Your task to perform on an android device: Open wifi settings Image 0: 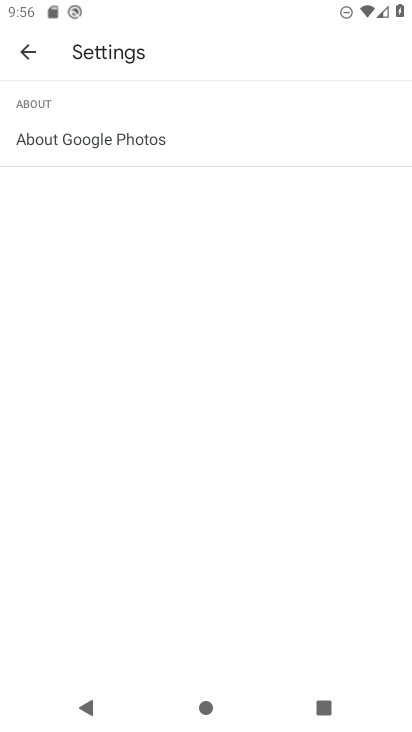
Step 0: drag from (177, 604) to (182, 123)
Your task to perform on an android device: Open wifi settings Image 1: 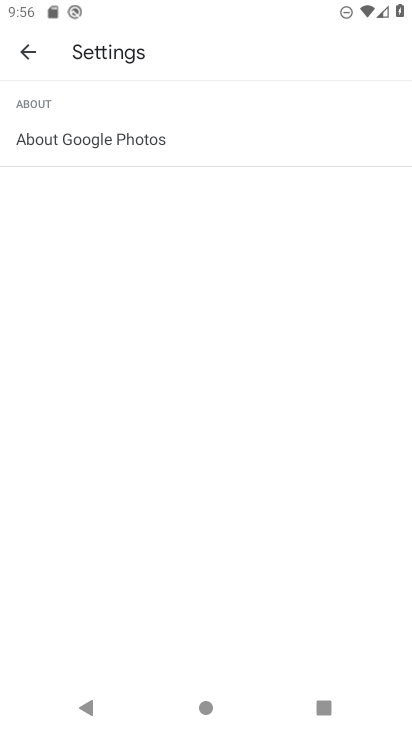
Step 1: press home button
Your task to perform on an android device: Open wifi settings Image 2: 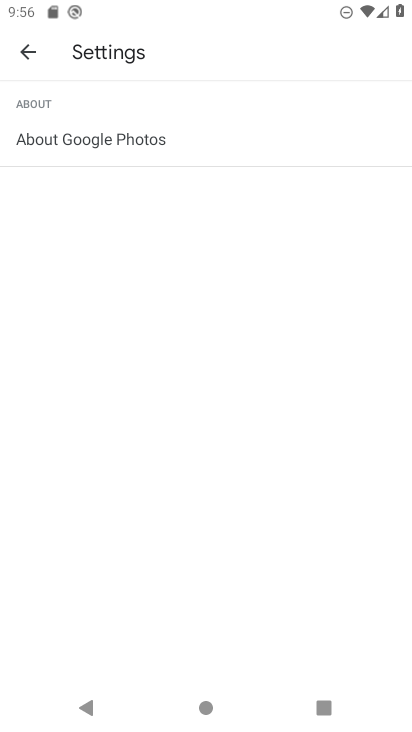
Step 2: press home button
Your task to perform on an android device: Open wifi settings Image 3: 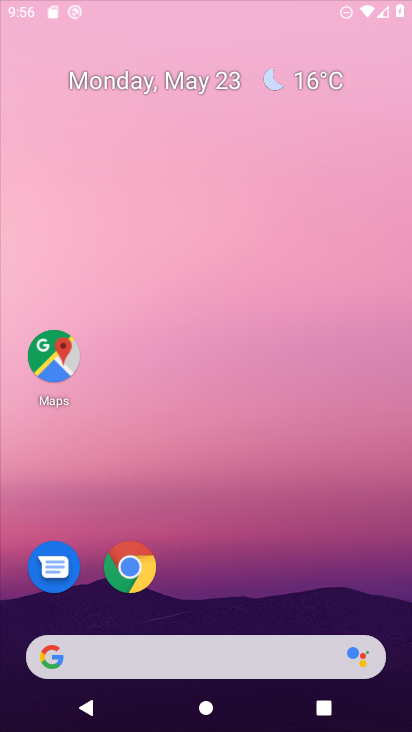
Step 3: drag from (153, 572) to (164, 118)
Your task to perform on an android device: Open wifi settings Image 4: 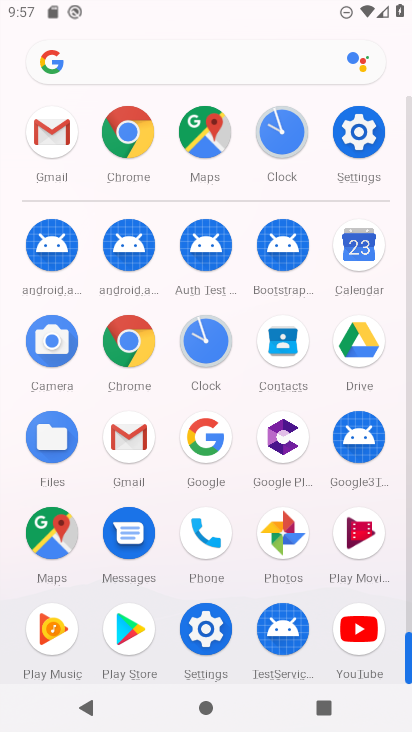
Step 4: click (358, 125)
Your task to perform on an android device: Open wifi settings Image 5: 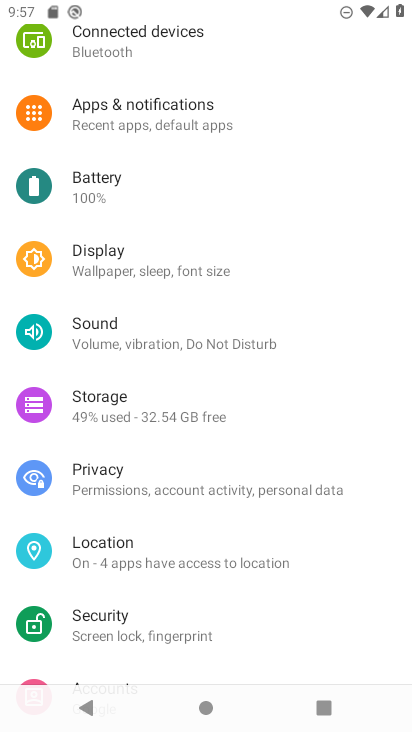
Step 5: drag from (135, 89) to (204, 676)
Your task to perform on an android device: Open wifi settings Image 6: 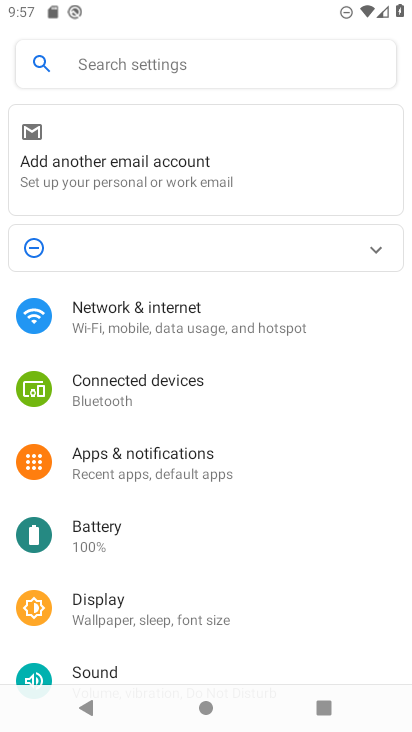
Step 6: click (155, 308)
Your task to perform on an android device: Open wifi settings Image 7: 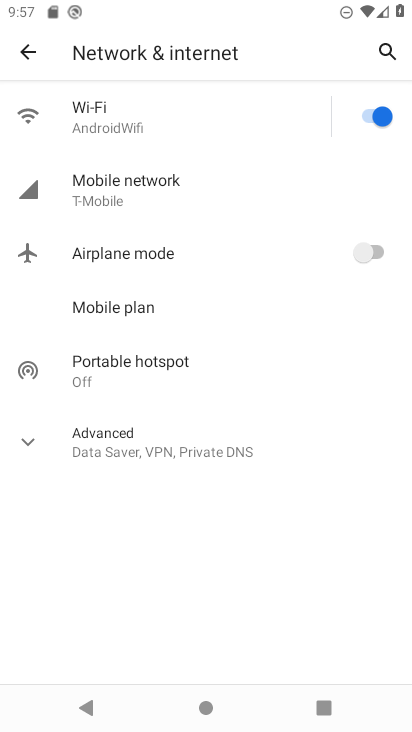
Step 7: click (139, 118)
Your task to perform on an android device: Open wifi settings Image 8: 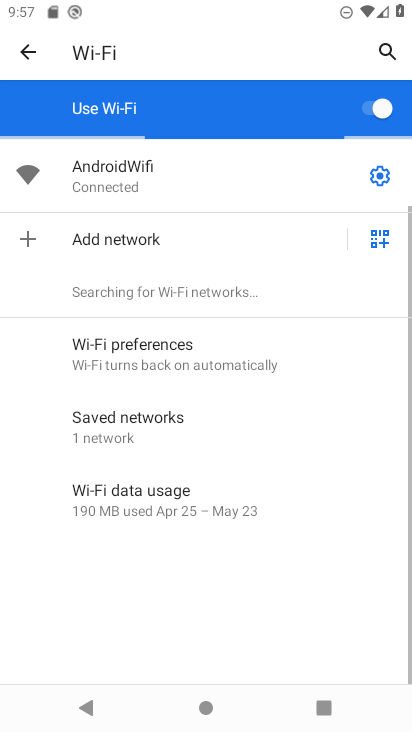
Step 8: click (383, 175)
Your task to perform on an android device: Open wifi settings Image 9: 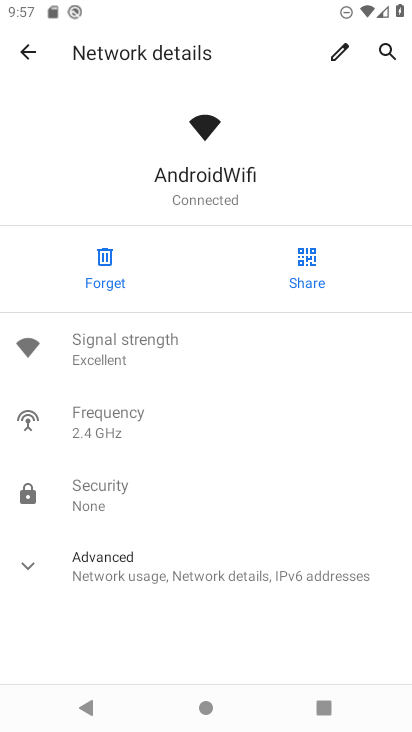
Step 9: task complete